Your task to perform on an android device: Show the shopping cart on bestbuy.com. Add usb-a to usb-b to the cart on bestbuy.com, then select checkout. Image 0: 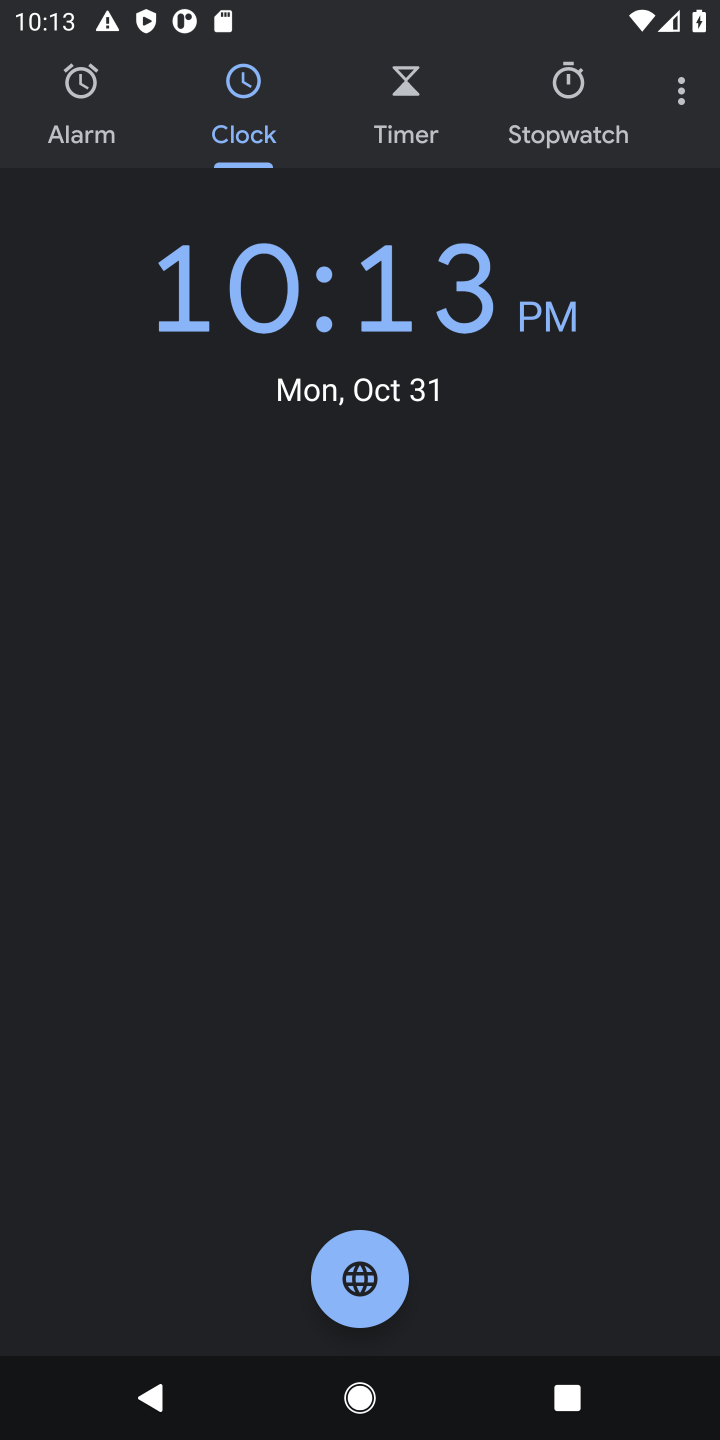
Step 0: press home button
Your task to perform on an android device: Show the shopping cart on bestbuy.com. Add usb-a to usb-b to the cart on bestbuy.com, then select checkout. Image 1: 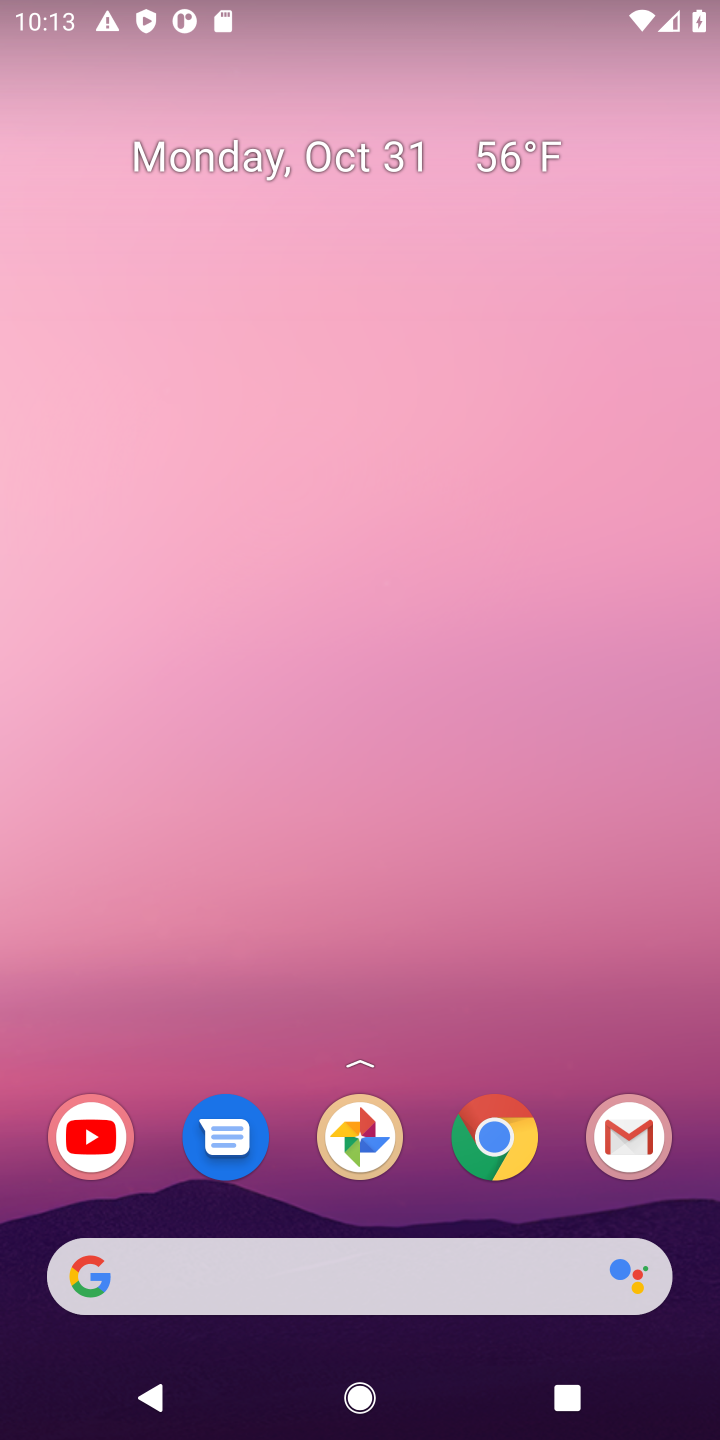
Step 1: click (492, 1141)
Your task to perform on an android device: Show the shopping cart on bestbuy.com. Add usb-a to usb-b to the cart on bestbuy.com, then select checkout. Image 2: 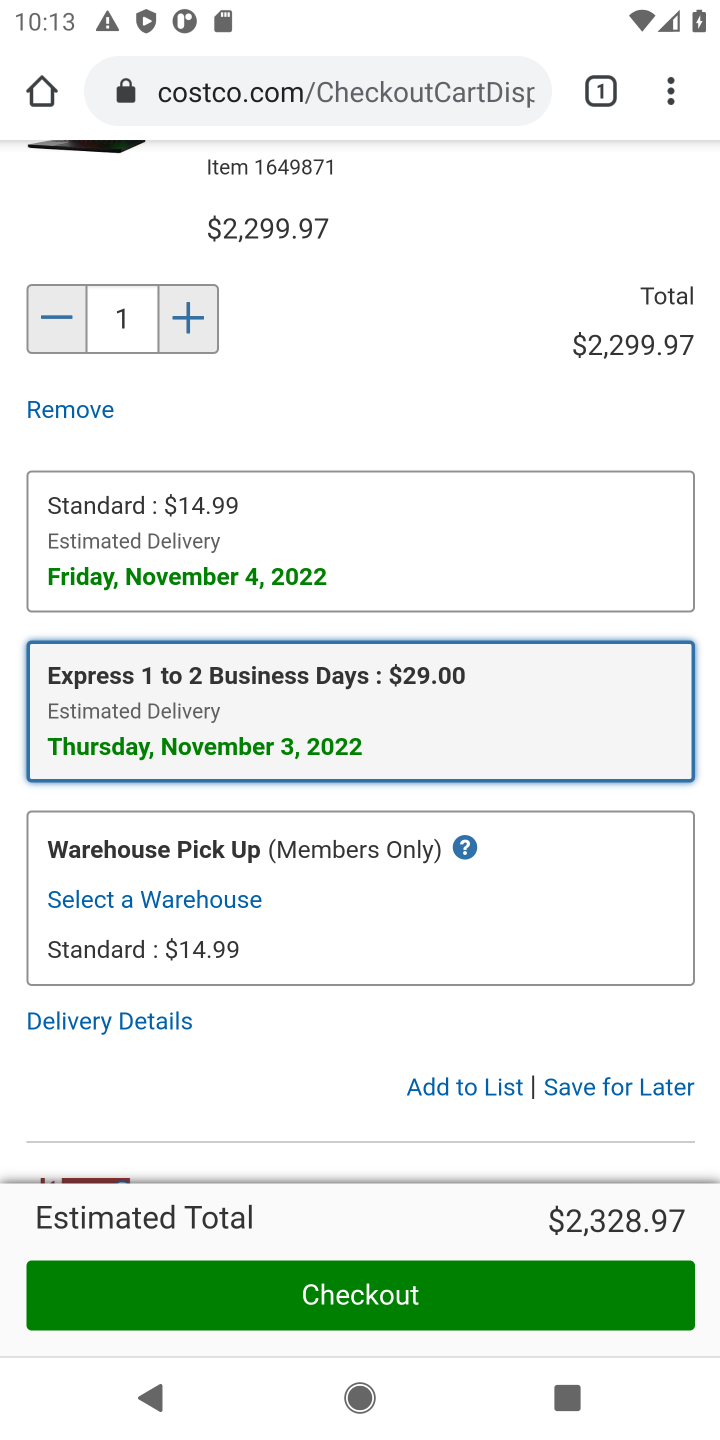
Step 2: click (391, 104)
Your task to perform on an android device: Show the shopping cart on bestbuy.com. Add usb-a to usb-b to the cart on bestbuy.com, then select checkout. Image 3: 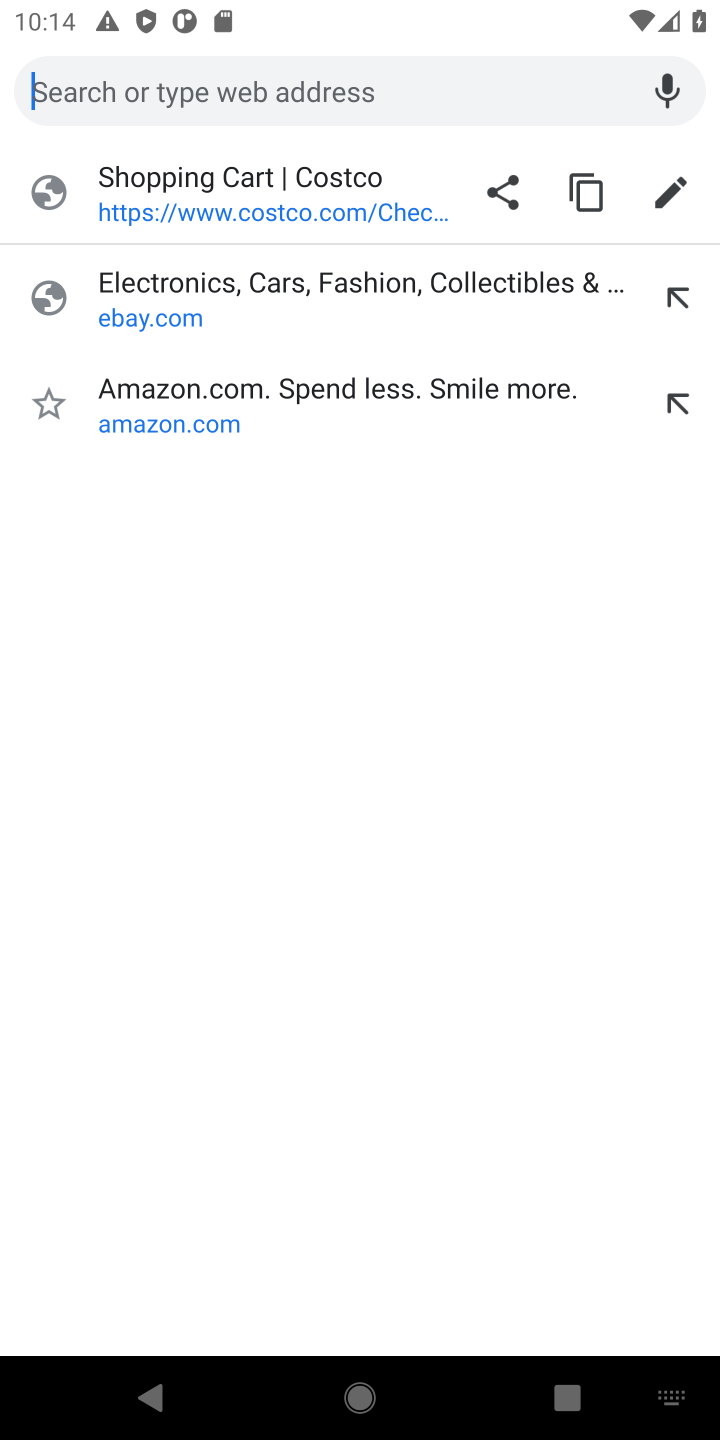
Step 3: type "bestbuy.com"
Your task to perform on an android device: Show the shopping cart on bestbuy.com. Add usb-a to usb-b to the cart on bestbuy.com, then select checkout. Image 4: 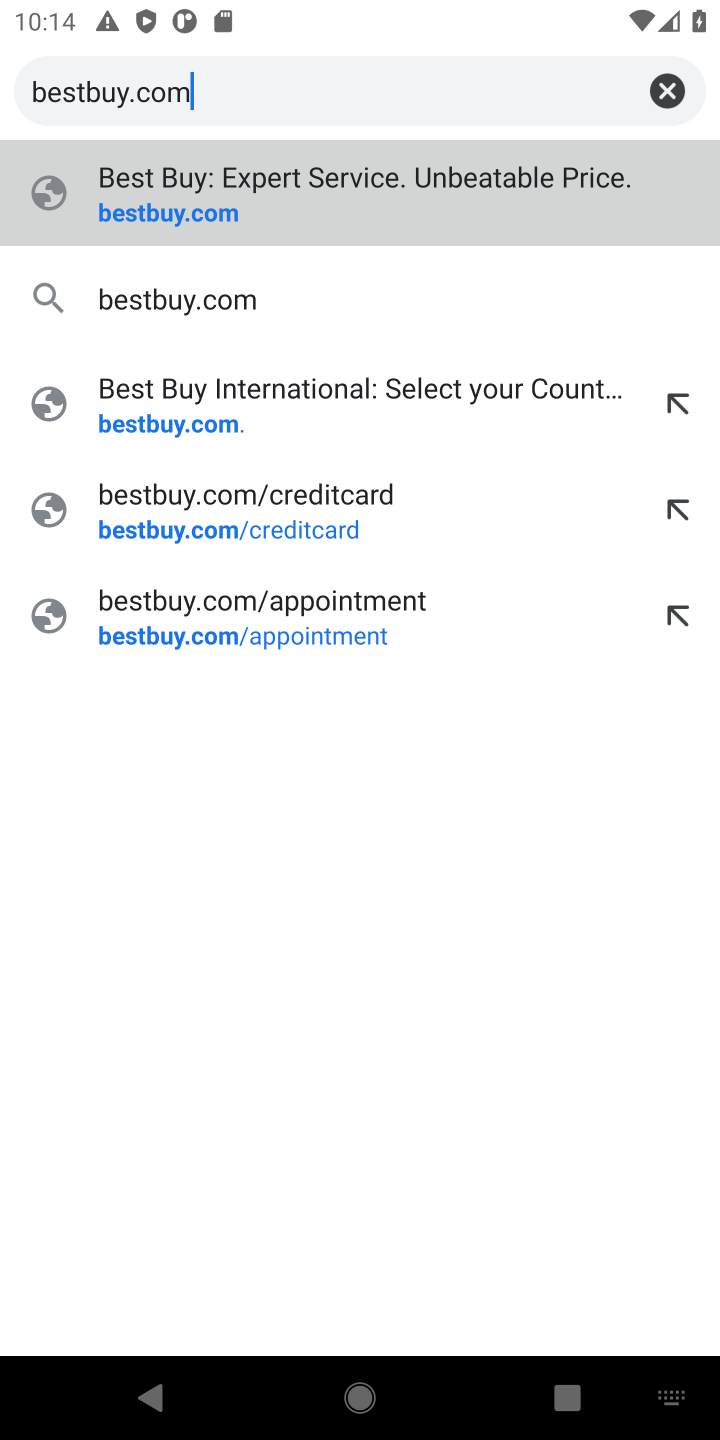
Step 4: click (201, 296)
Your task to perform on an android device: Show the shopping cart on bestbuy.com. Add usb-a to usb-b to the cart on bestbuy.com, then select checkout. Image 5: 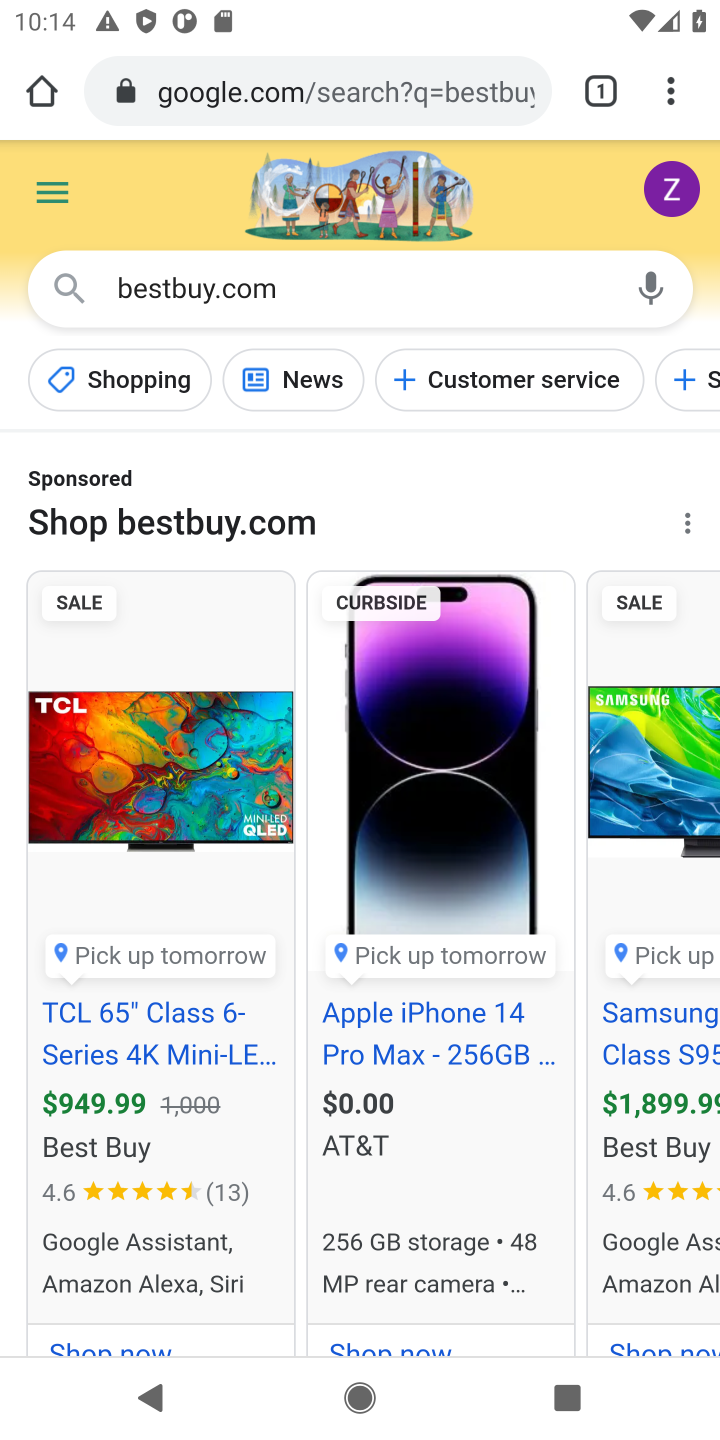
Step 5: drag from (438, 1079) to (488, 453)
Your task to perform on an android device: Show the shopping cart on bestbuy.com. Add usb-a to usb-b to the cart on bestbuy.com, then select checkout. Image 6: 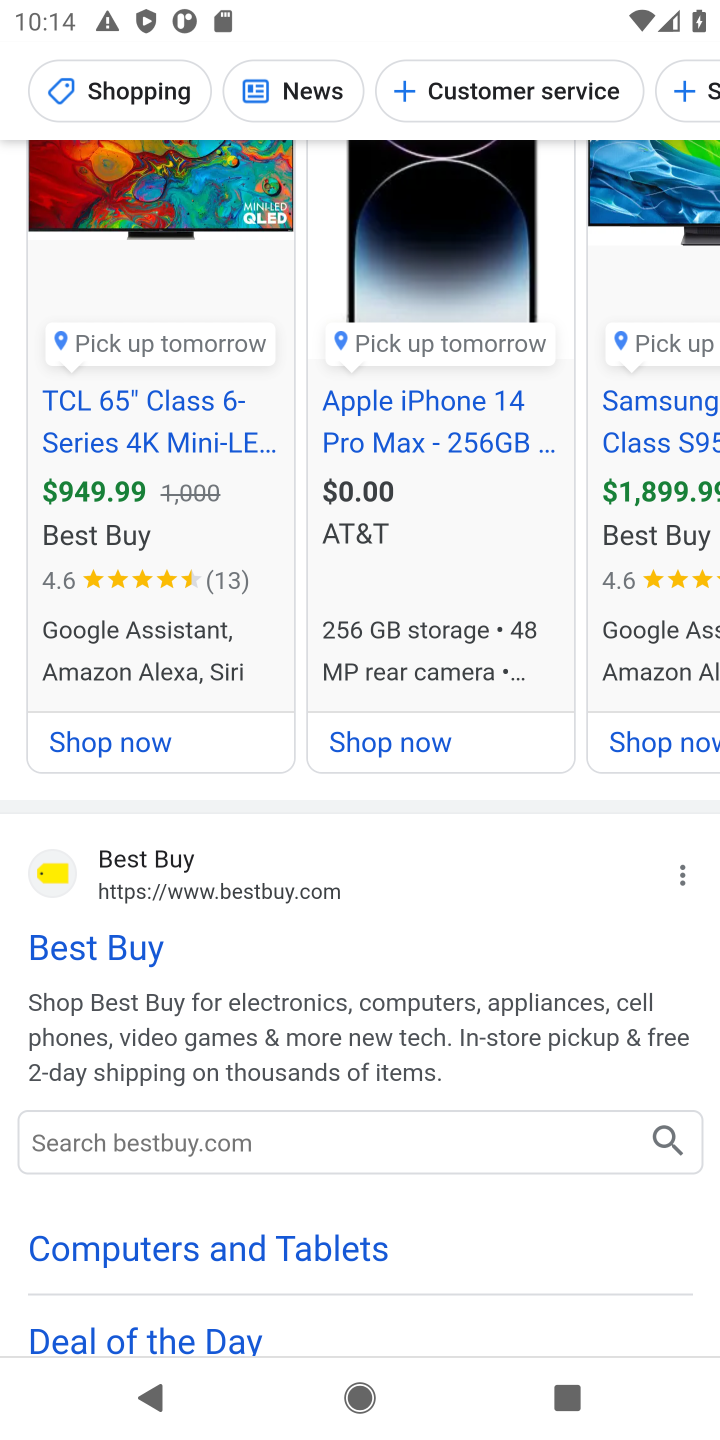
Step 6: click (144, 951)
Your task to perform on an android device: Show the shopping cart on bestbuy.com. Add usb-a to usb-b to the cart on bestbuy.com, then select checkout. Image 7: 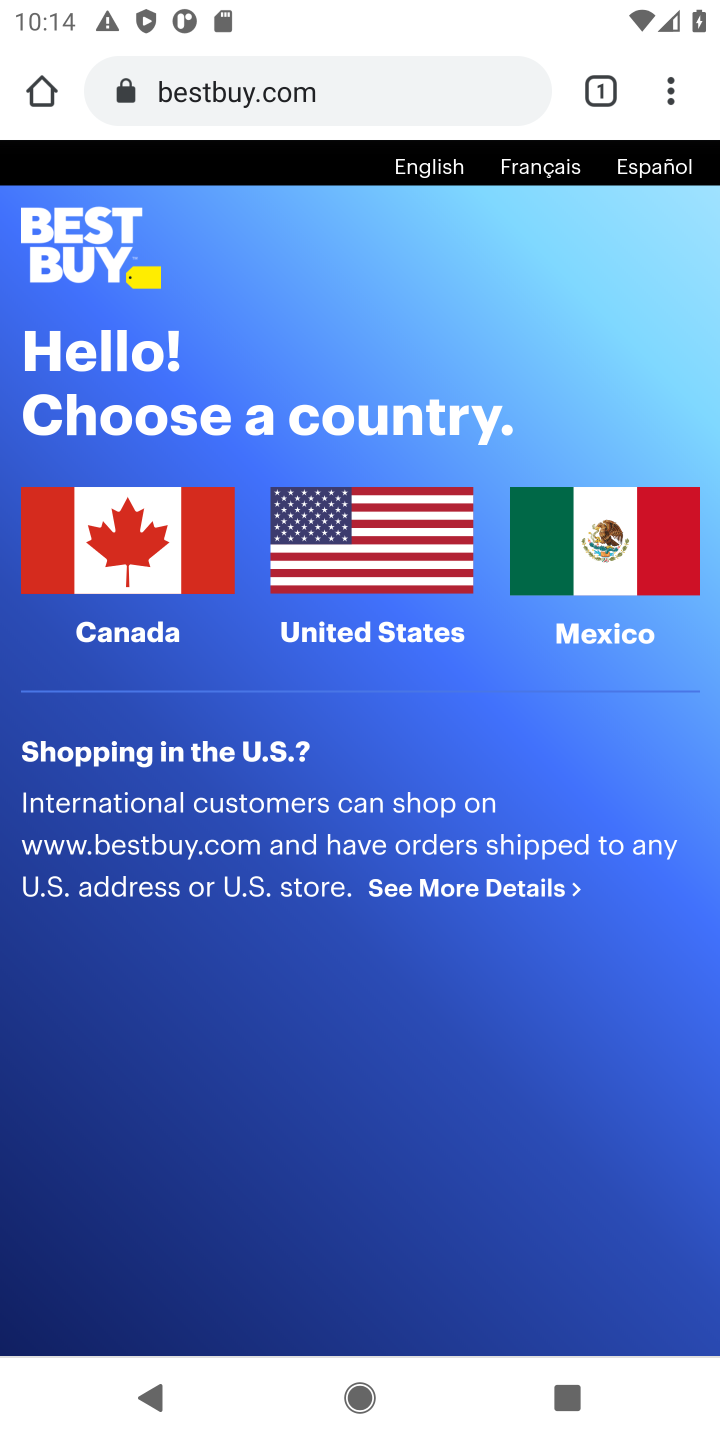
Step 7: click (334, 559)
Your task to perform on an android device: Show the shopping cart on bestbuy.com. Add usb-a to usb-b to the cart on bestbuy.com, then select checkout. Image 8: 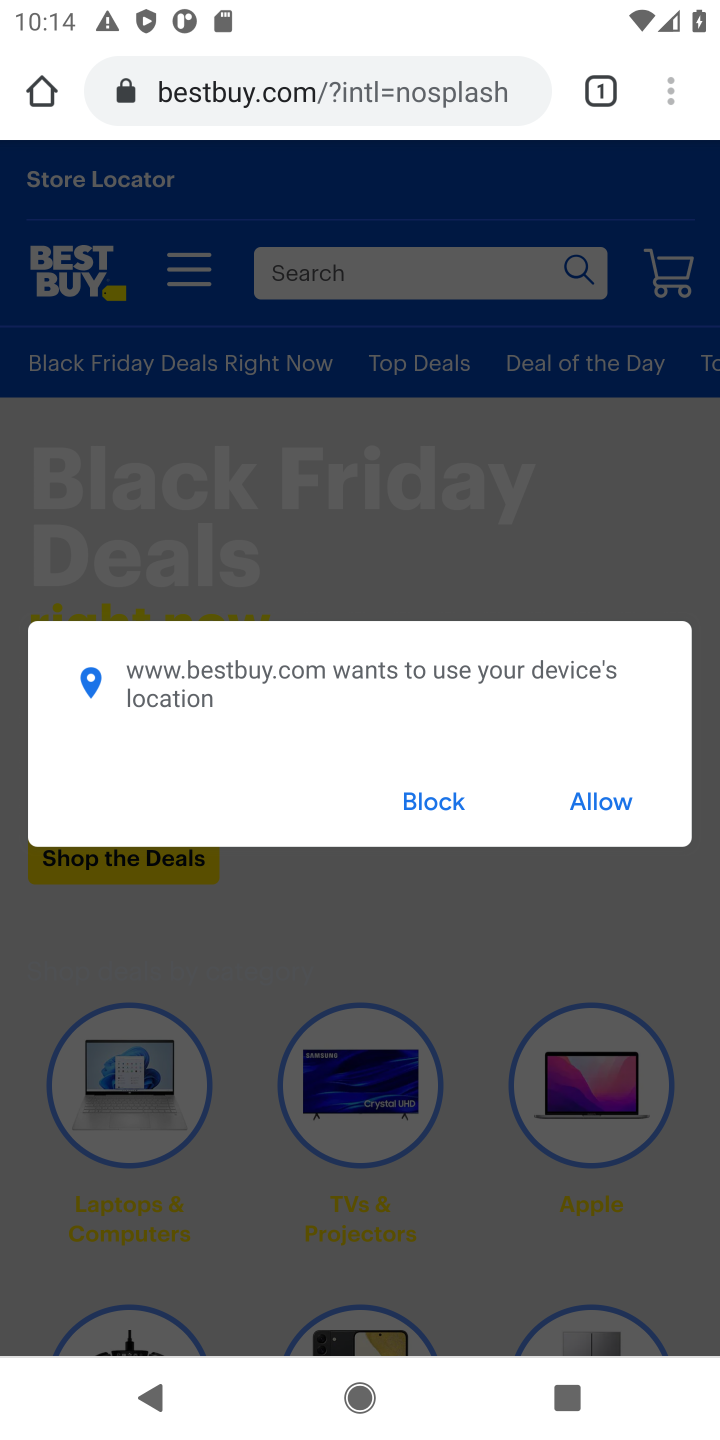
Step 8: click (602, 808)
Your task to perform on an android device: Show the shopping cart on bestbuy.com. Add usb-a to usb-b to the cart on bestbuy.com, then select checkout. Image 9: 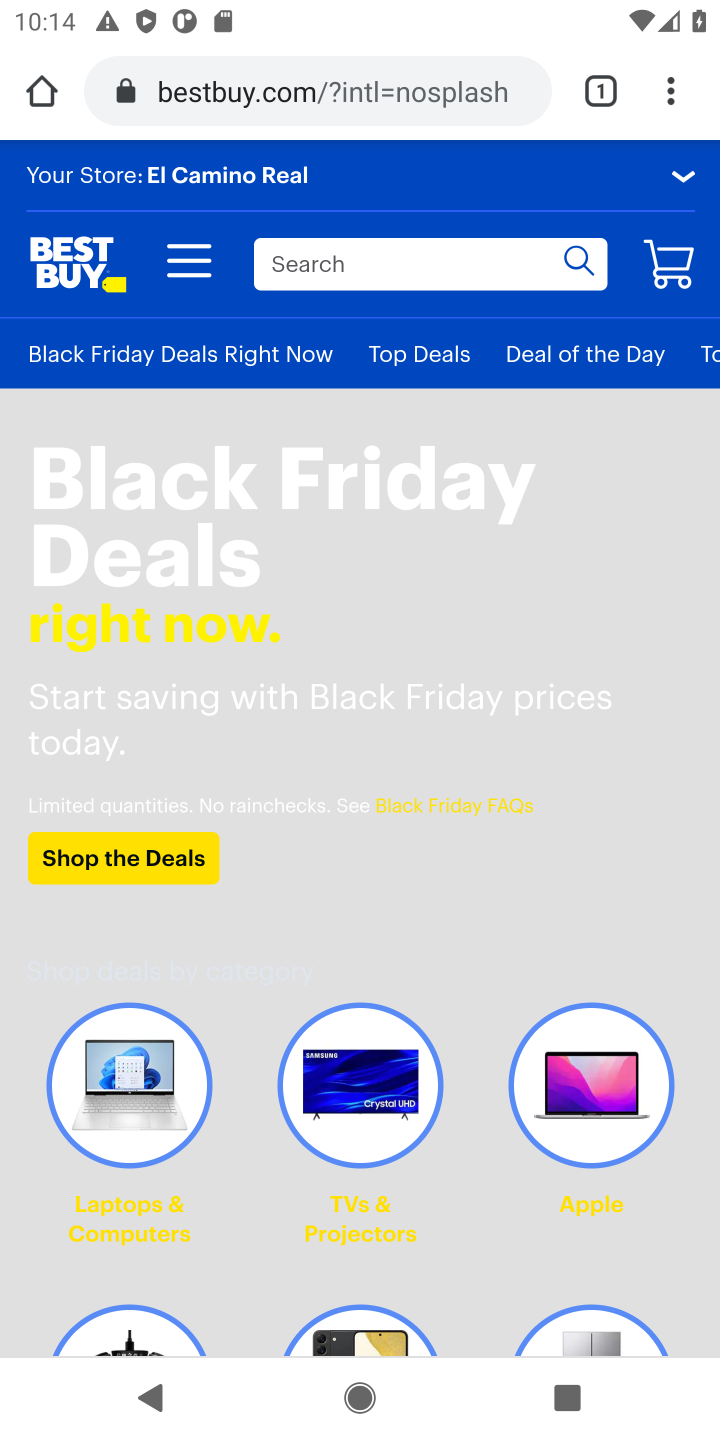
Step 9: click (672, 269)
Your task to perform on an android device: Show the shopping cart on bestbuy.com. Add usb-a to usb-b to the cart on bestbuy.com, then select checkout. Image 10: 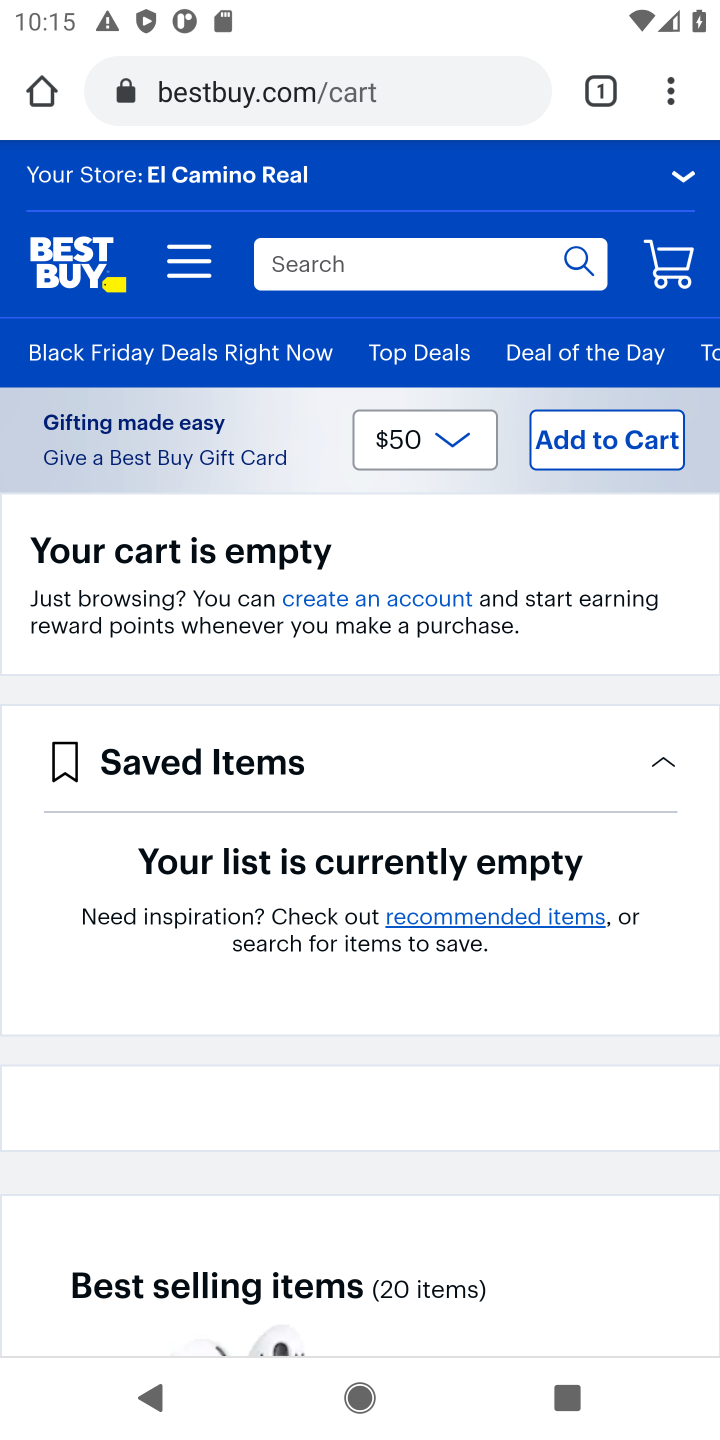
Step 10: click (434, 260)
Your task to perform on an android device: Show the shopping cart on bestbuy.com. Add usb-a to usb-b to the cart on bestbuy.com, then select checkout. Image 11: 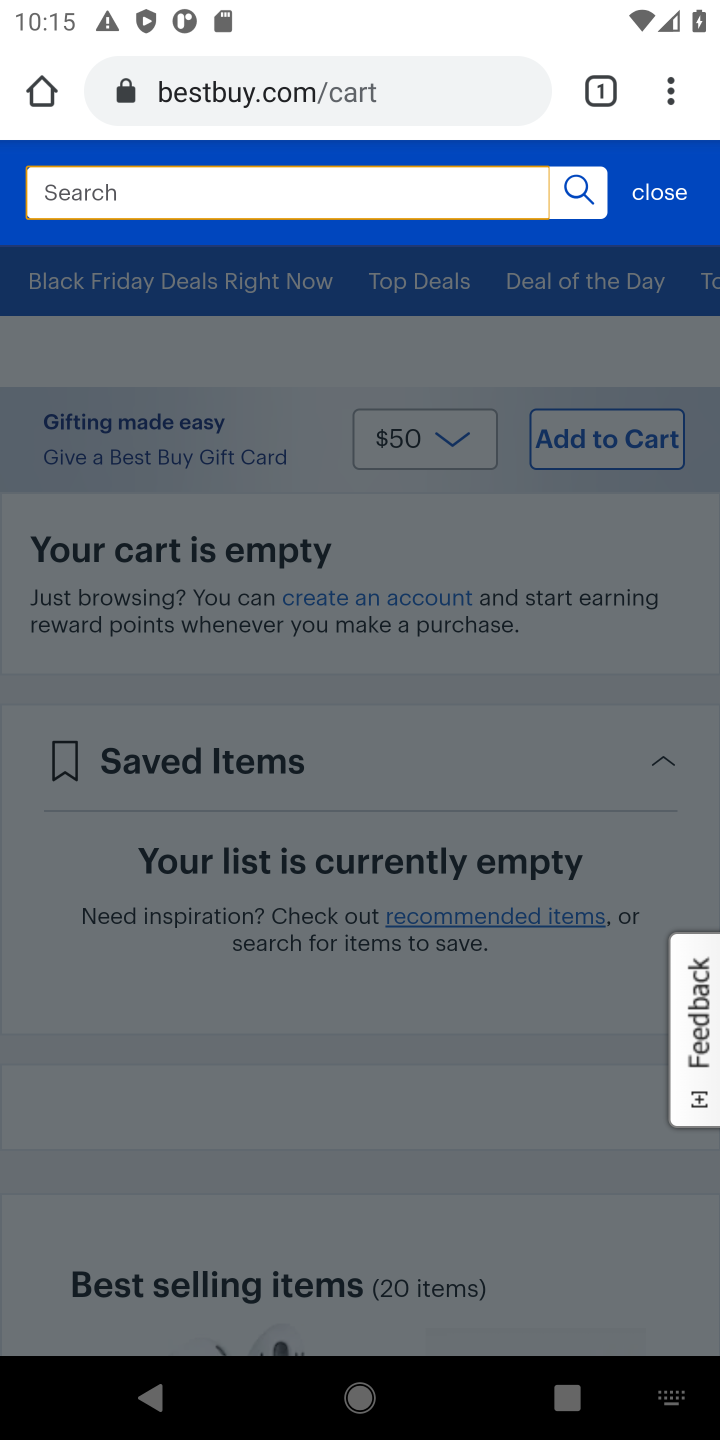
Step 11: type "usb-a to usb-b"
Your task to perform on an android device: Show the shopping cart on bestbuy.com. Add usb-a to usb-b to the cart on bestbuy.com, then select checkout. Image 12: 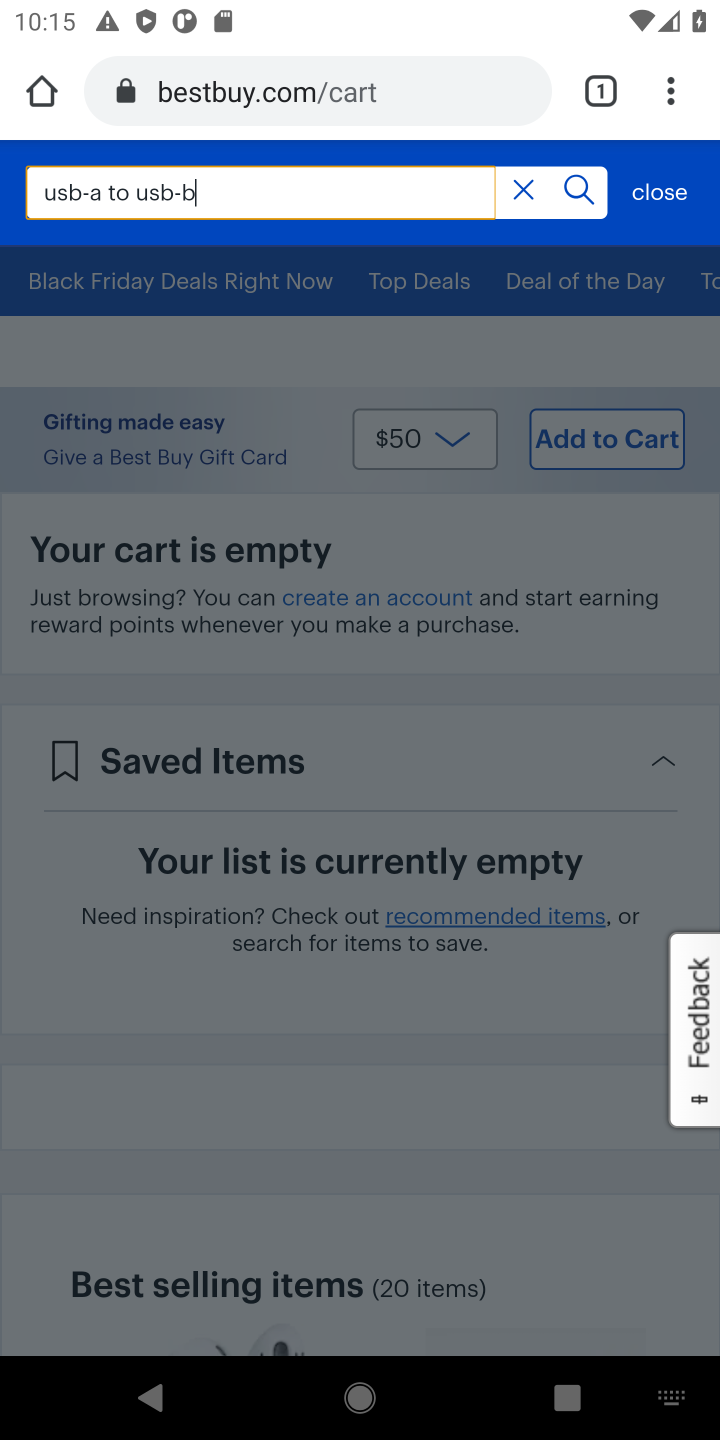
Step 12: click (573, 187)
Your task to perform on an android device: Show the shopping cart on bestbuy.com. Add usb-a to usb-b to the cart on bestbuy.com, then select checkout. Image 13: 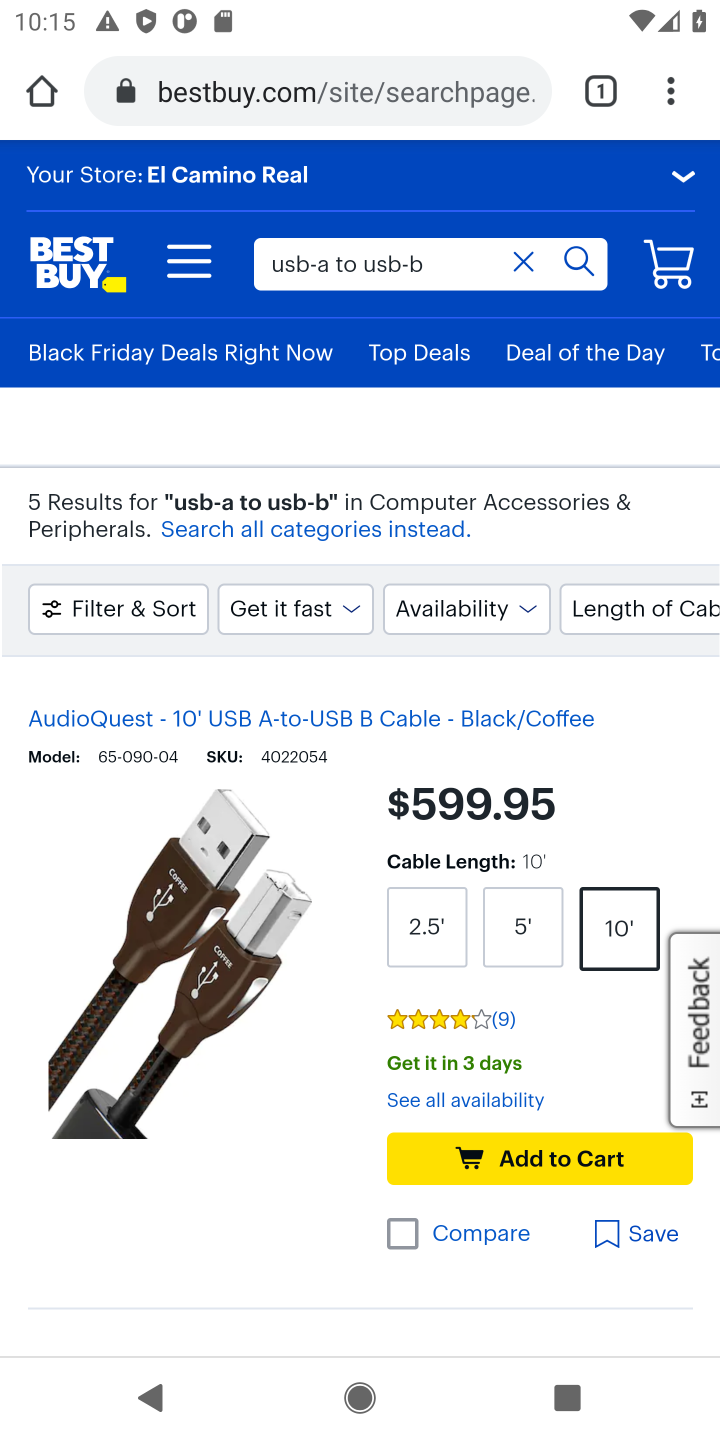
Step 13: click (521, 1156)
Your task to perform on an android device: Show the shopping cart on bestbuy.com. Add usb-a to usb-b to the cart on bestbuy.com, then select checkout. Image 14: 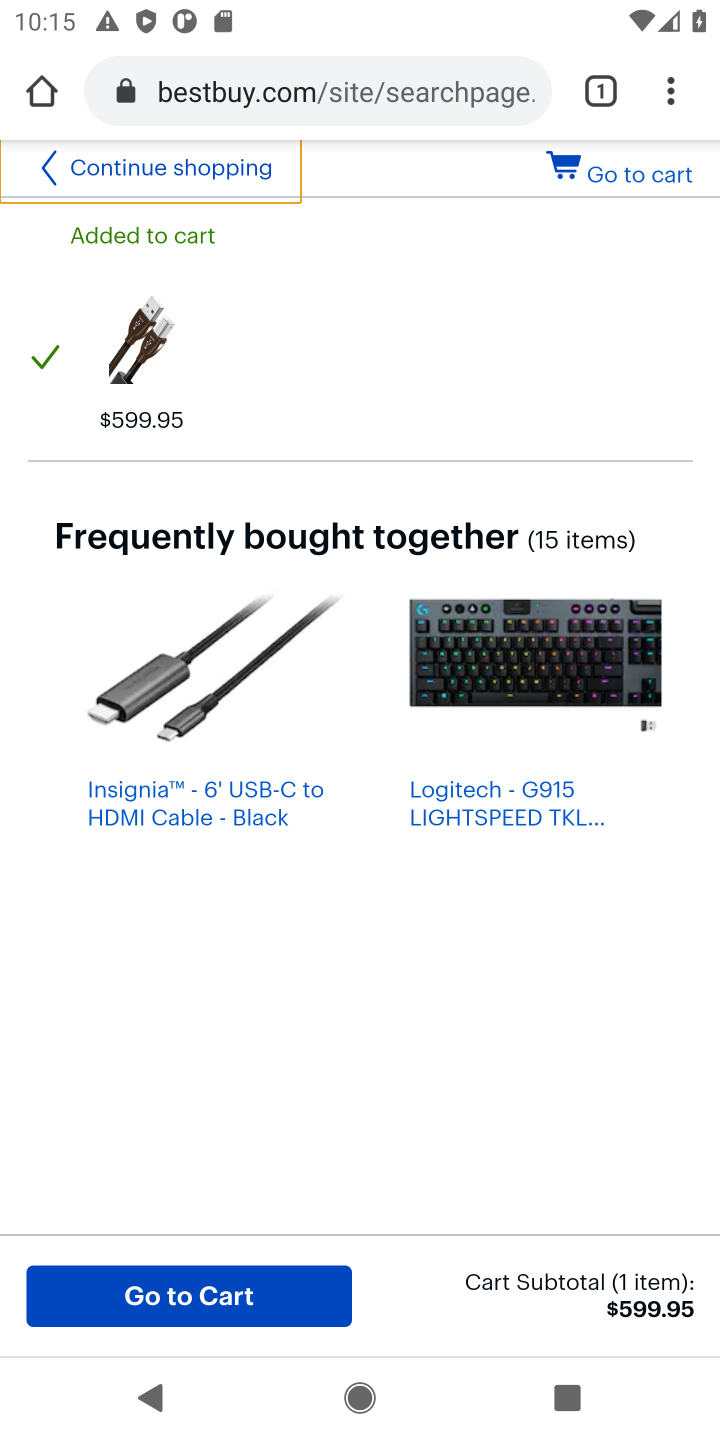
Step 14: click (180, 1298)
Your task to perform on an android device: Show the shopping cart on bestbuy.com. Add usb-a to usb-b to the cart on bestbuy.com, then select checkout. Image 15: 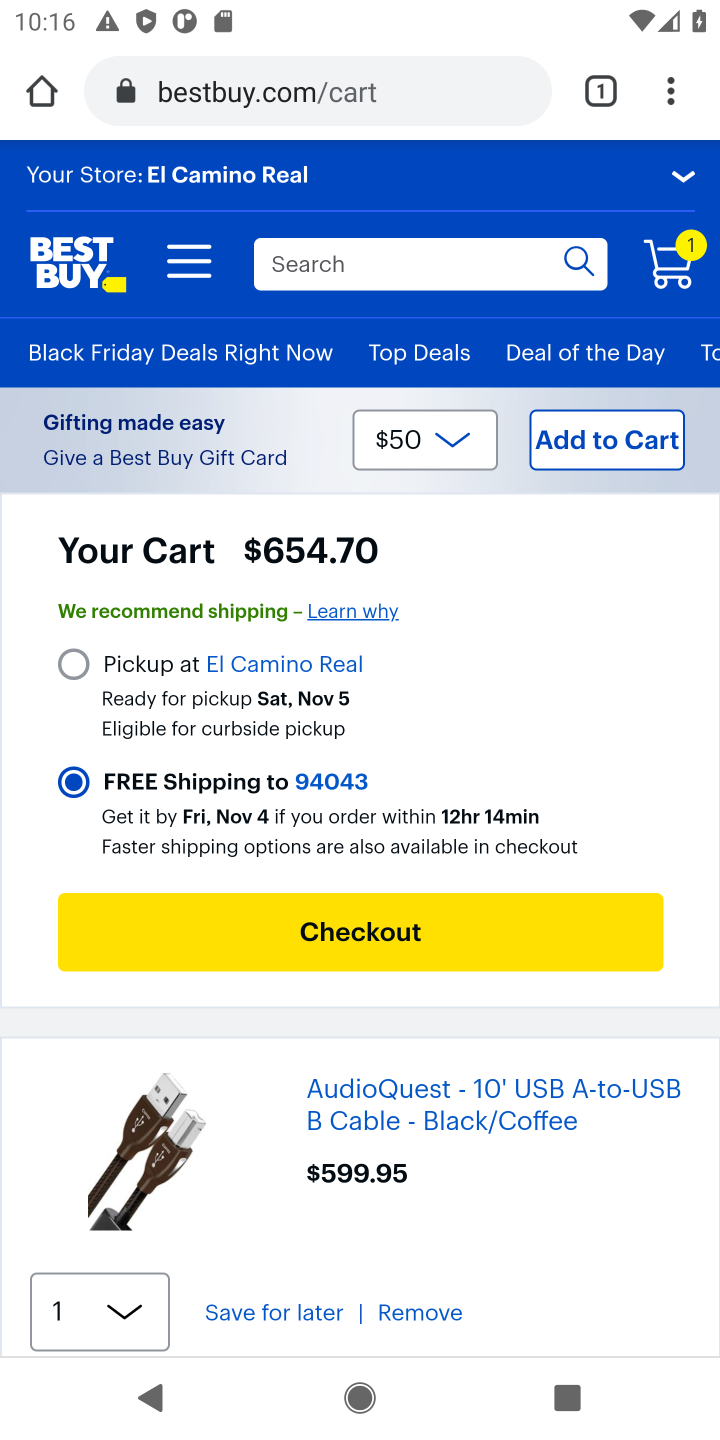
Step 15: click (338, 930)
Your task to perform on an android device: Show the shopping cart on bestbuy.com. Add usb-a to usb-b to the cart on bestbuy.com, then select checkout. Image 16: 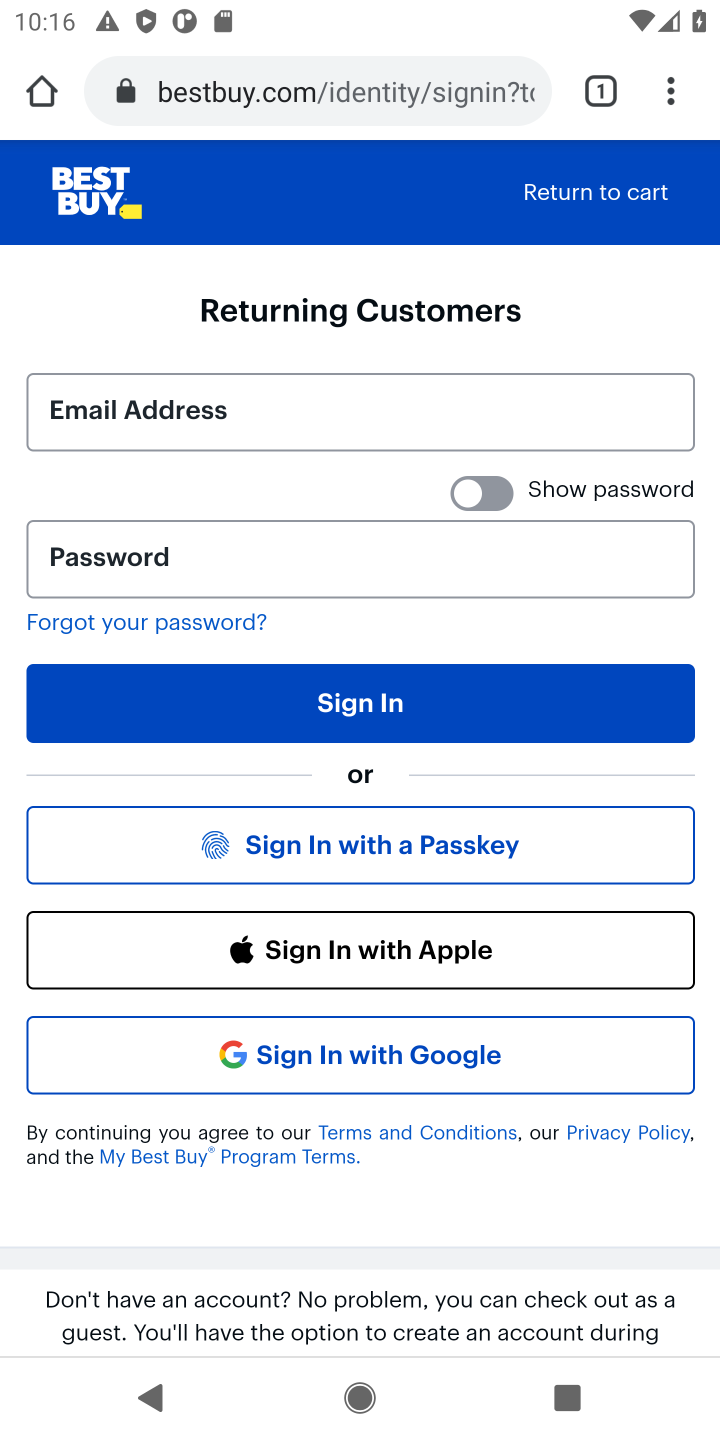
Step 16: task complete